Your task to perform on an android device: Open calendar and show me the second week of next month Image 0: 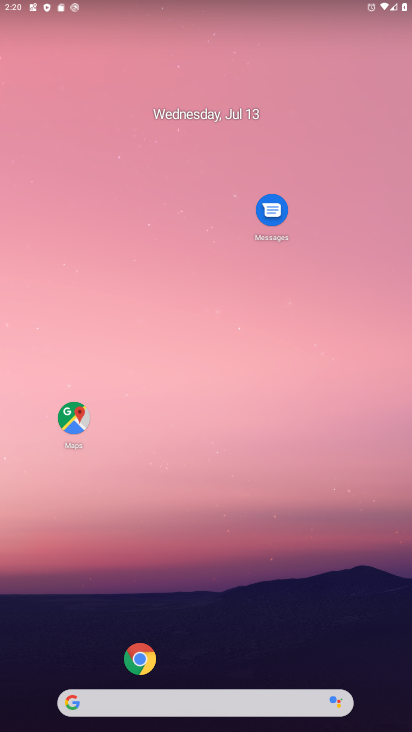
Step 0: drag from (30, 676) to (306, 6)
Your task to perform on an android device: Open calendar and show me the second week of next month Image 1: 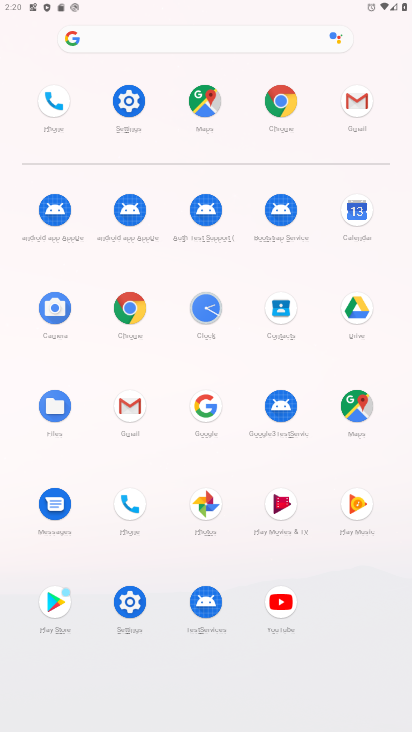
Step 1: click (337, 213)
Your task to perform on an android device: Open calendar and show me the second week of next month Image 2: 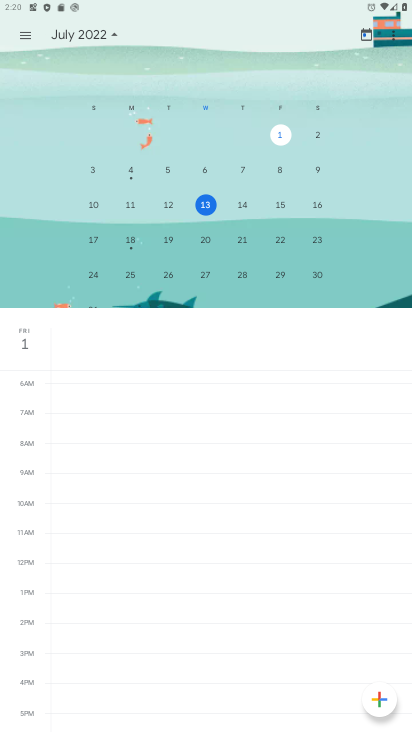
Step 2: drag from (356, 150) to (23, 300)
Your task to perform on an android device: Open calendar and show me the second week of next month Image 3: 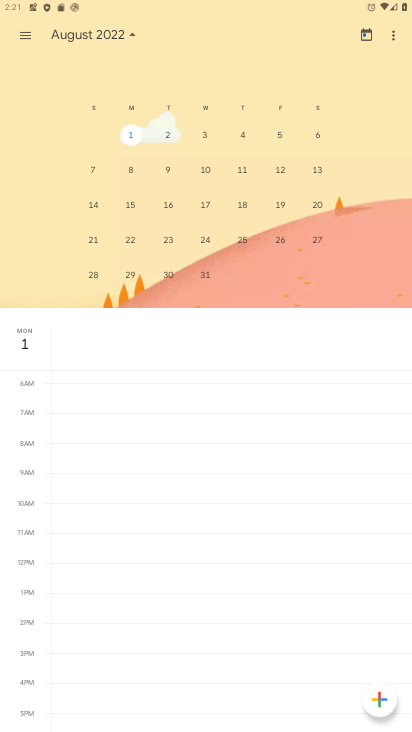
Step 3: click (129, 171)
Your task to perform on an android device: Open calendar and show me the second week of next month Image 4: 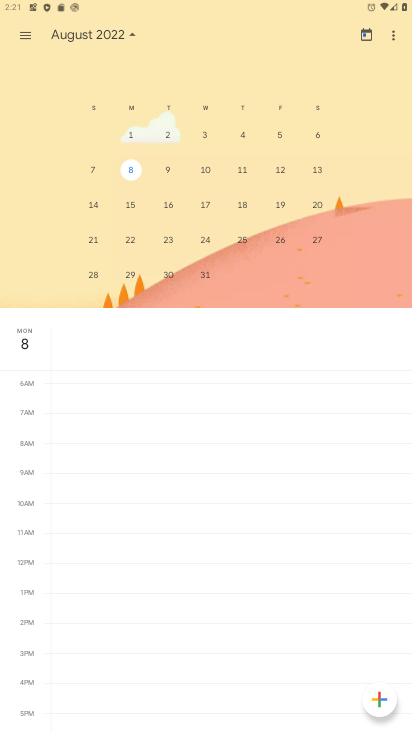
Step 4: task complete